Your task to perform on an android device: toggle improve location accuracy Image 0: 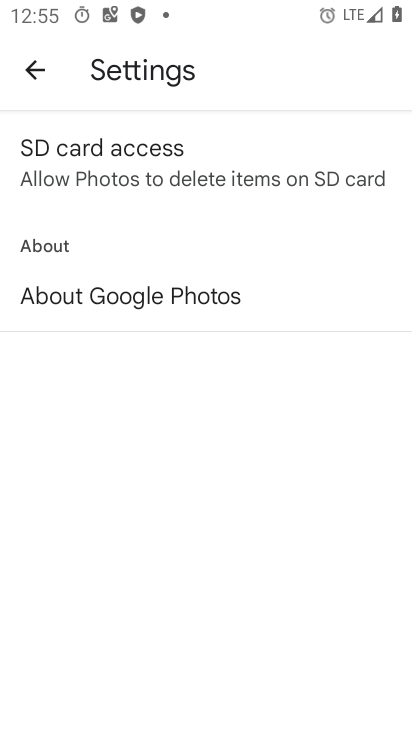
Step 0: press home button
Your task to perform on an android device: toggle improve location accuracy Image 1: 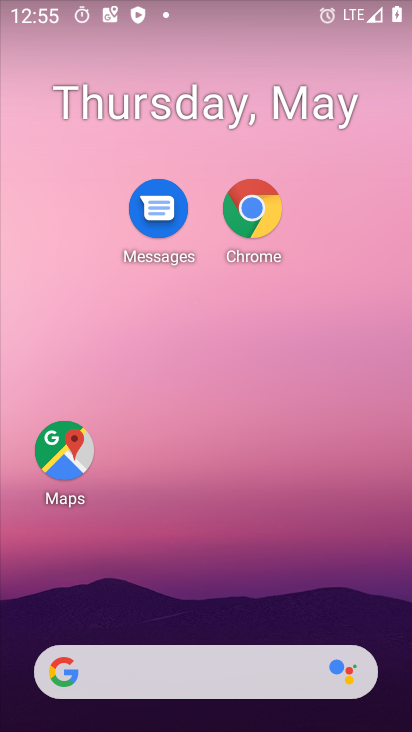
Step 1: drag from (270, 613) to (126, 98)
Your task to perform on an android device: toggle improve location accuracy Image 2: 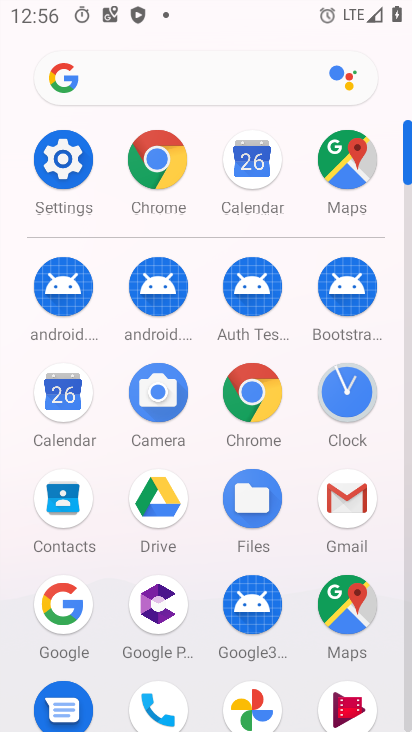
Step 2: click (60, 178)
Your task to perform on an android device: toggle improve location accuracy Image 3: 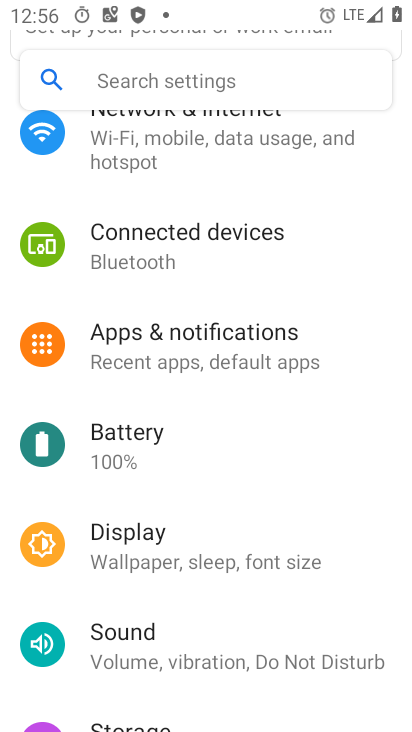
Step 3: drag from (172, 650) to (195, 237)
Your task to perform on an android device: toggle improve location accuracy Image 4: 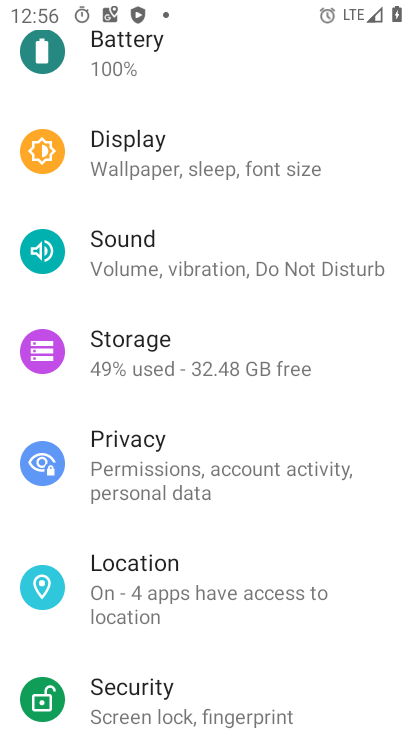
Step 4: click (163, 612)
Your task to perform on an android device: toggle improve location accuracy Image 5: 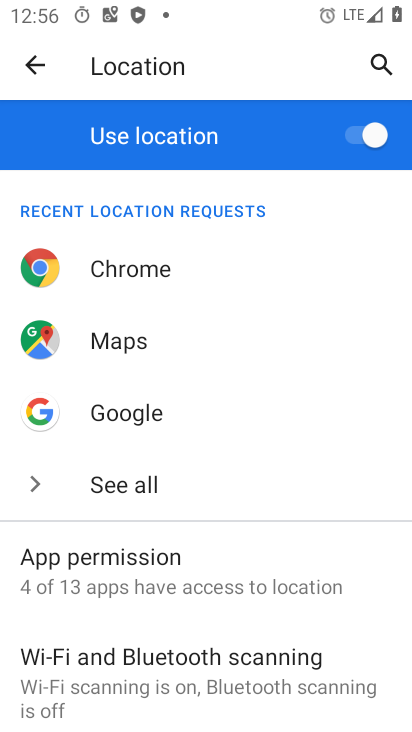
Step 5: drag from (176, 717) to (179, 494)
Your task to perform on an android device: toggle improve location accuracy Image 6: 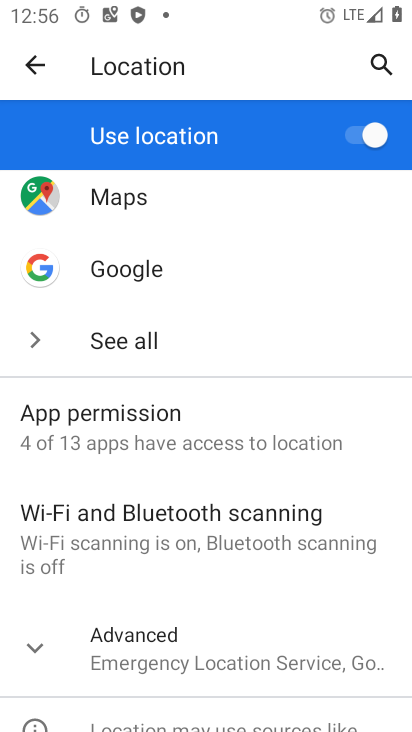
Step 6: drag from (158, 635) to (177, 500)
Your task to perform on an android device: toggle improve location accuracy Image 7: 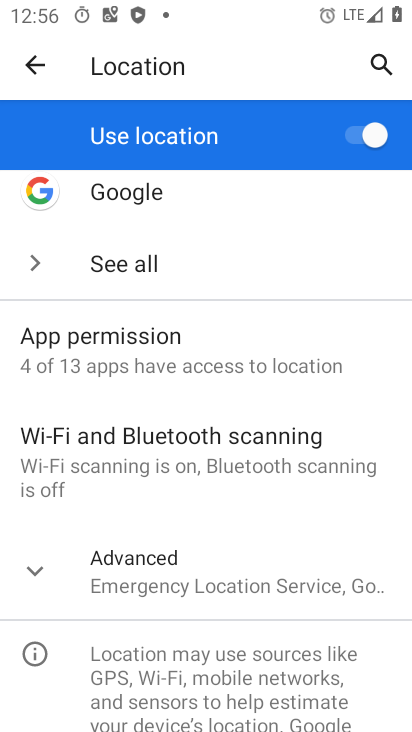
Step 7: click (150, 594)
Your task to perform on an android device: toggle improve location accuracy Image 8: 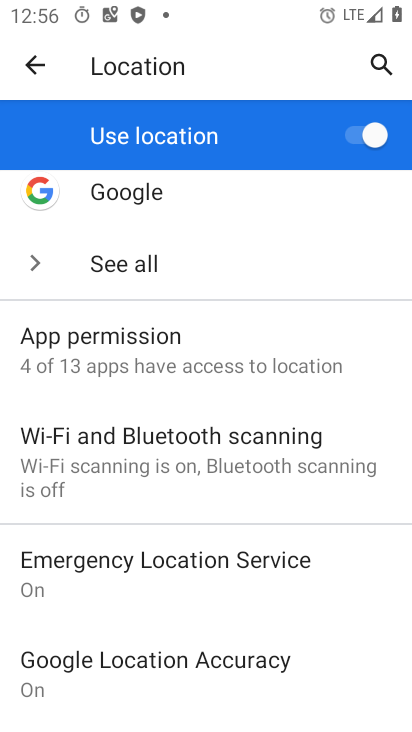
Step 8: click (165, 673)
Your task to perform on an android device: toggle improve location accuracy Image 9: 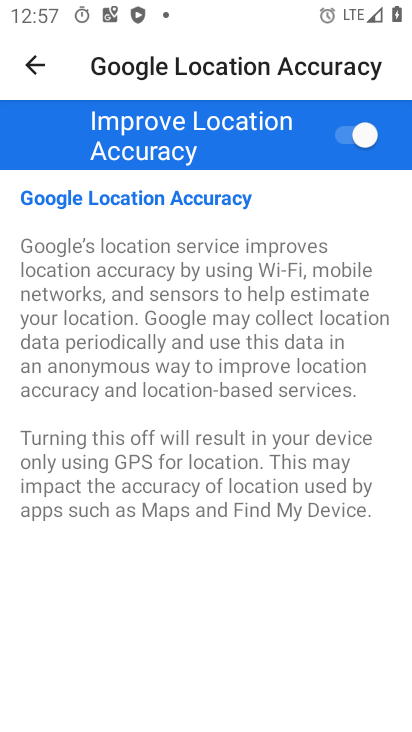
Step 9: click (345, 132)
Your task to perform on an android device: toggle improve location accuracy Image 10: 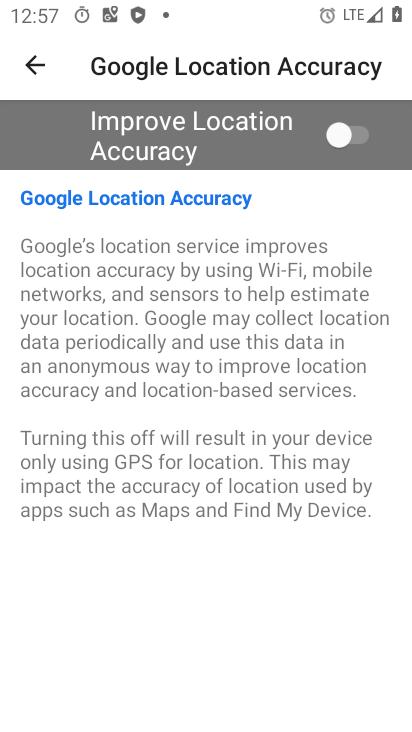
Step 10: task complete